Your task to perform on an android device: Open my contact list Image 0: 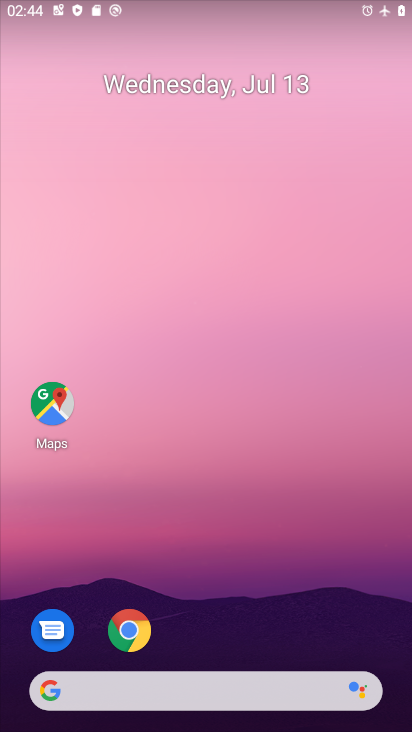
Step 0: drag from (241, 645) to (201, 232)
Your task to perform on an android device: Open my contact list Image 1: 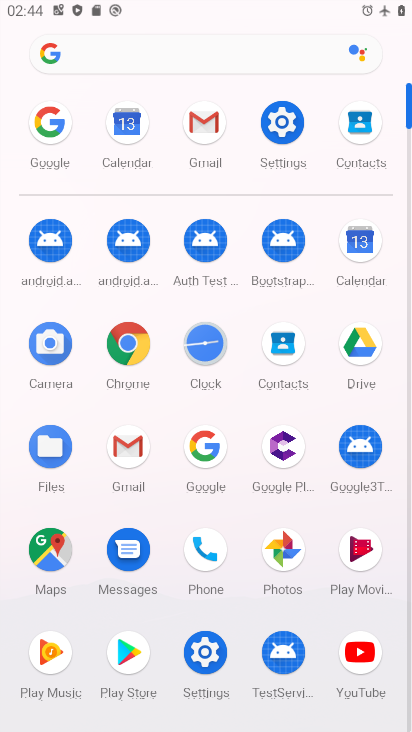
Step 1: click (285, 355)
Your task to perform on an android device: Open my contact list Image 2: 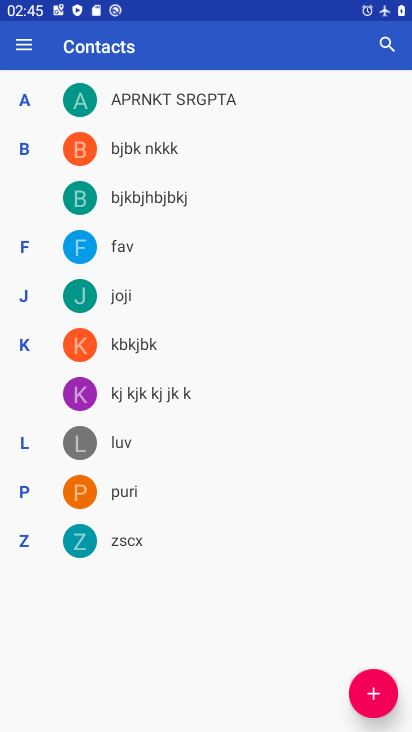
Step 2: task complete